Your task to perform on an android device: Open Youtube and go to the subscriptions tab Image 0: 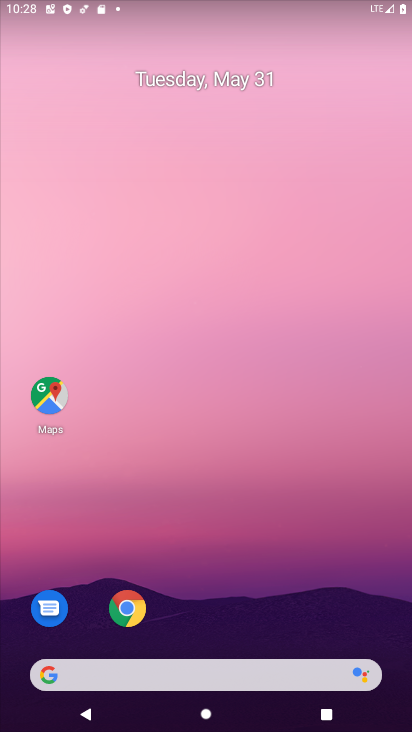
Step 0: drag from (184, 655) to (134, 35)
Your task to perform on an android device: Open Youtube and go to the subscriptions tab Image 1: 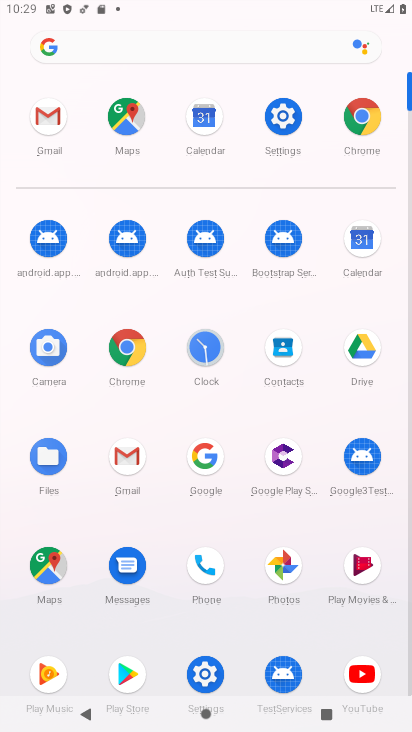
Step 1: click (364, 666)
Your task to perform on an android device: Open Youtube and go to the subscriptions tab Image 2: 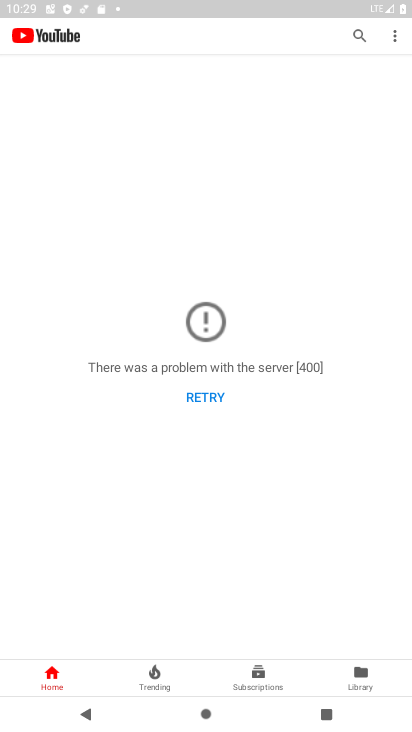
Step 2: click (260, 682)
Your task to perform on an android device: Open Youtube and go to the subscriptions tab Image 3: 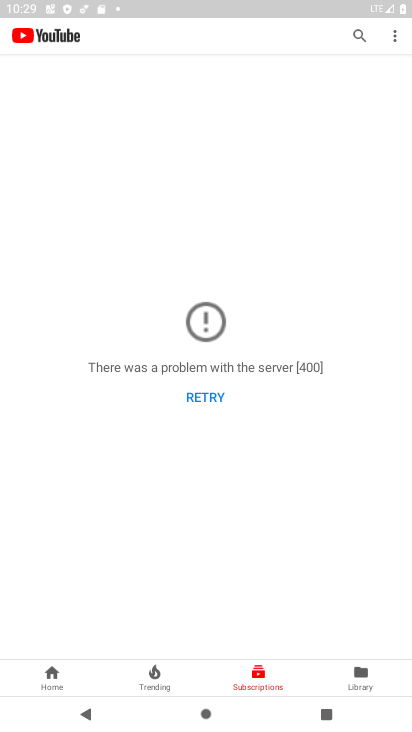
Step 3: task complete